Your task to perform on an android device: What's the weather? Image 0: 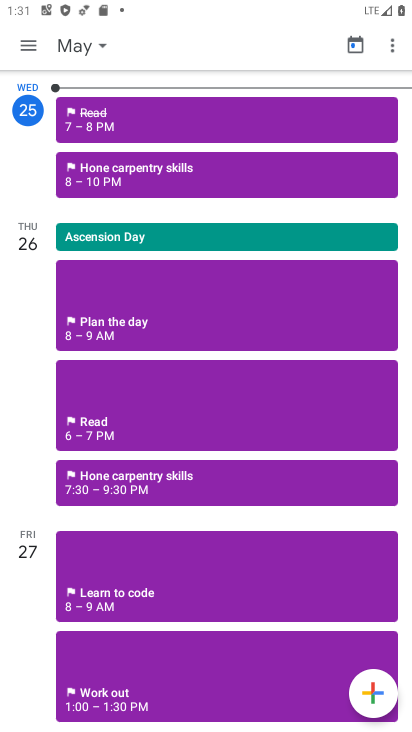
Step 0: press home button
Your task to perform on an android device: What's the weather? Image 1: 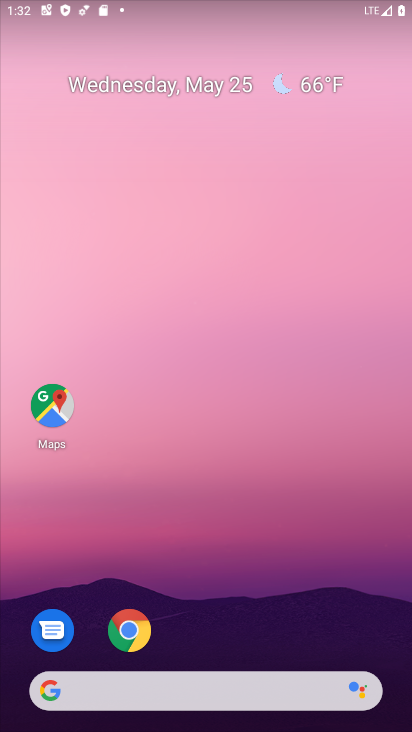
Step 1: click (311, 77)
Your task to perform on an android device: What's the weather? Image 2: 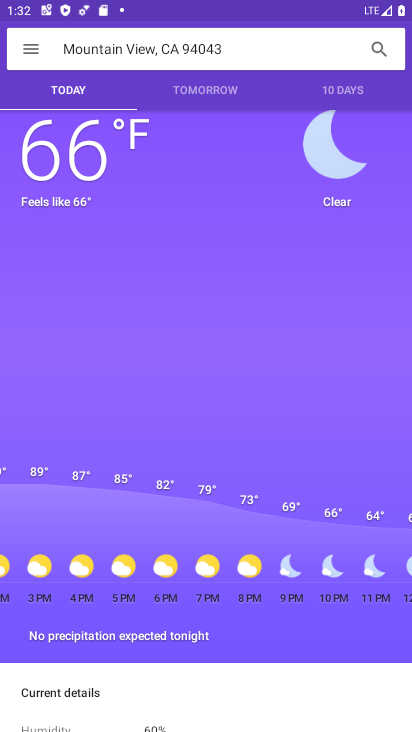
Step 2: task complete